Your task to perform on an android device: turn on notifications settings in the gmail app Image 0: 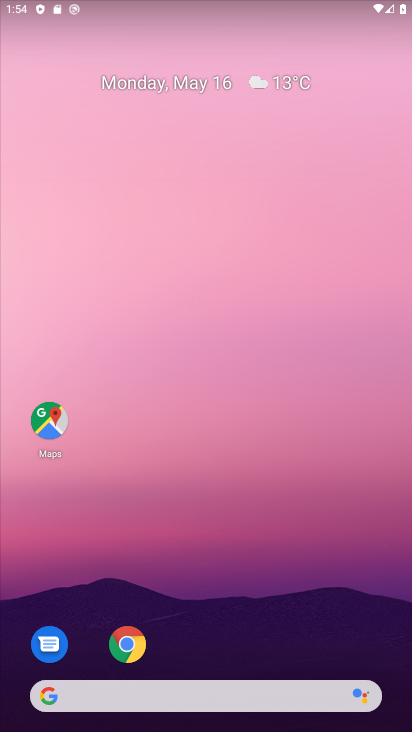
Step 0: drag from (215, 677) to (157, 330)
Your task to perform on an android device: turn on notifications settings in the gmail app Image 1: 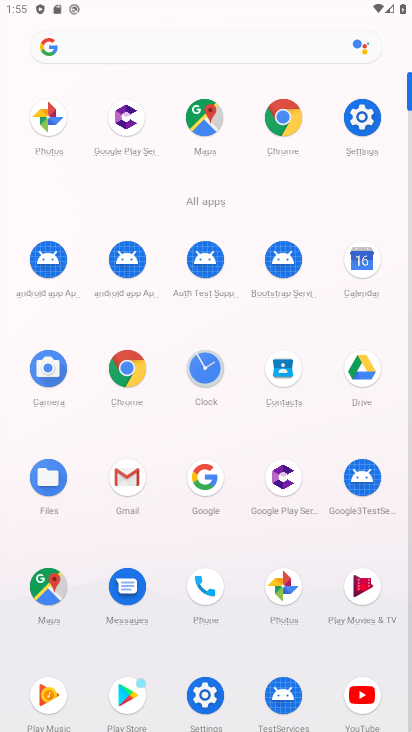
Step 1: click (124, 471)
Your task to perform on an android device: turn on notifications settings in the gmail app Image 2: 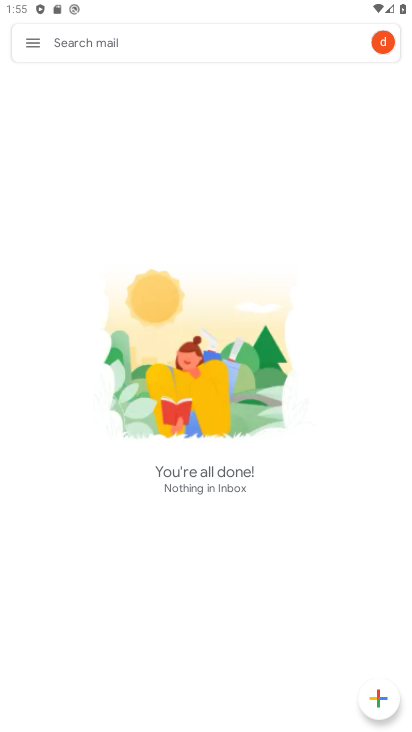
Step 2: click (35, 36)
Your task to perform on an android device: turn on notifications settings in the gmail app Image 3: 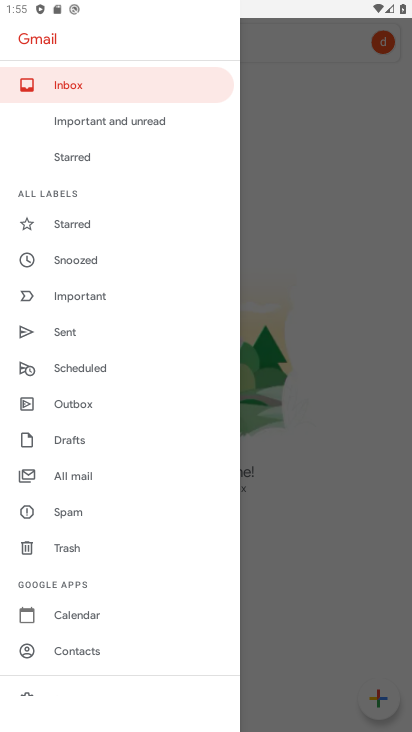
Step 3: drag from (63, 628) to (25, 199)
Your task to perform on an android device: turn on notifications settings in the gmail app Image 4: 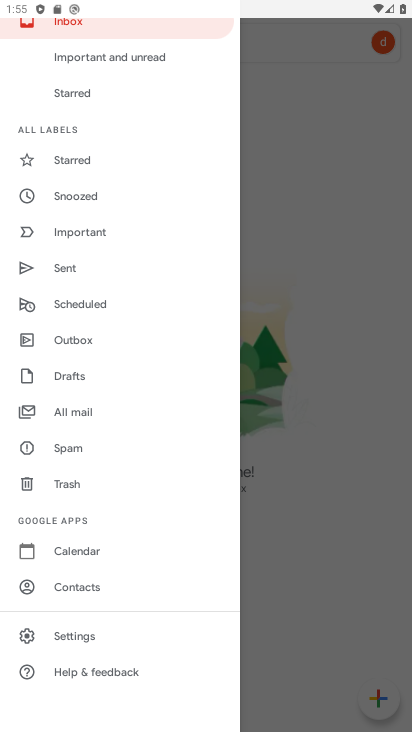
Step 4: click (82, 636)
Your task to perform on an android device: turn on notifications settings in the gmail app Image 5: 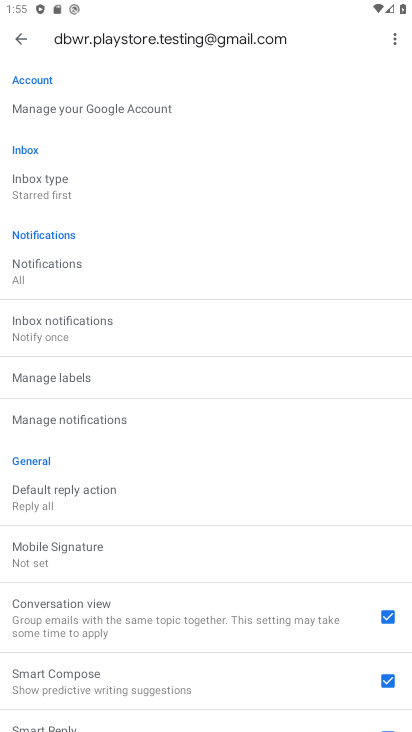
Step 5: click (85, 417)
Your task to perform on an android device: turn on notifications settings in the gmail app Image 6: 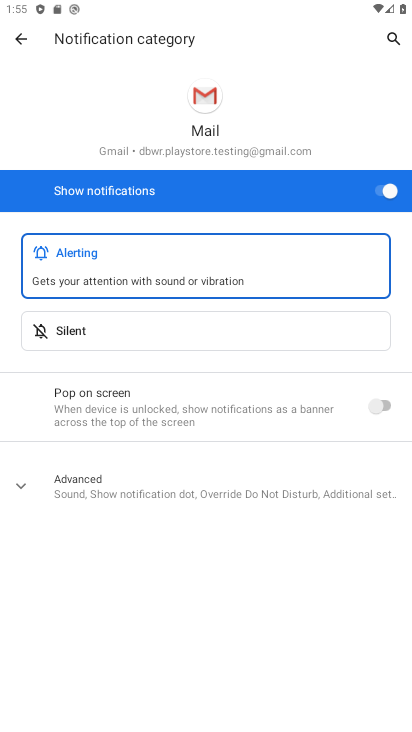
Step 6: task complete